Your task to perform on an android device: see tabs open on other devices in the chrome app Image 0: 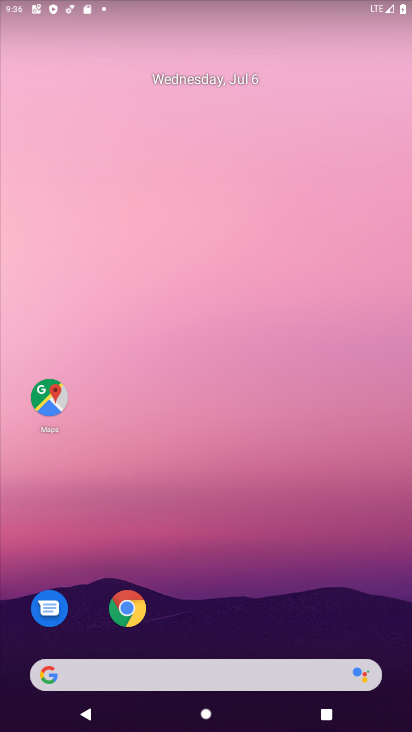
Step 0: click (128, 613)
Your task to perform on an android device: see tabs open on other devices in the chrome app Image 1: 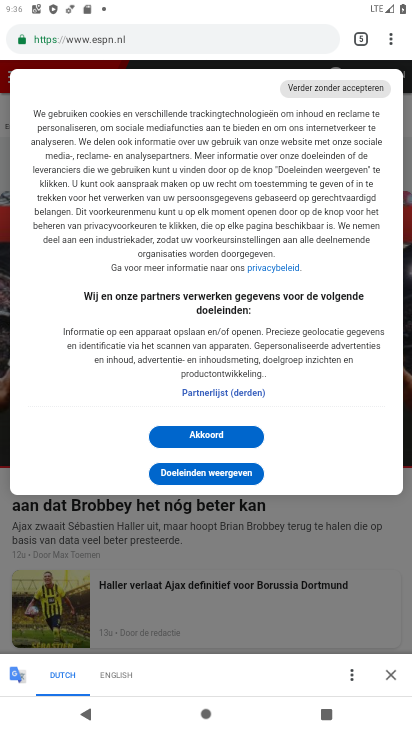
Step 1: click (392, 35)
Your task to perform on an android device: see tabs open on other devices in the chrome app Image 2: 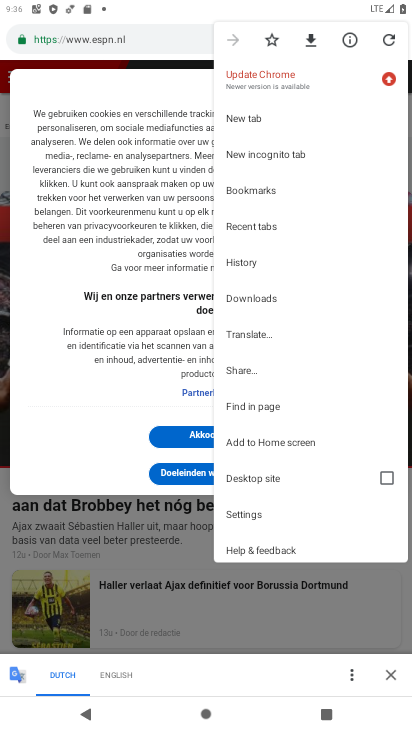
Step 2: click (251, 223)
Your task to perform on an android device: see tabs open on other devices in the chrome app Image 3: 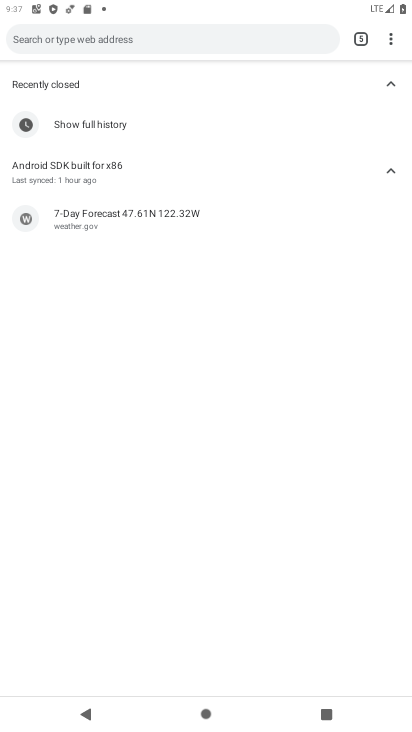
Step 3: task complete